Your task to perform on an android device: open wifi settings Image 0: 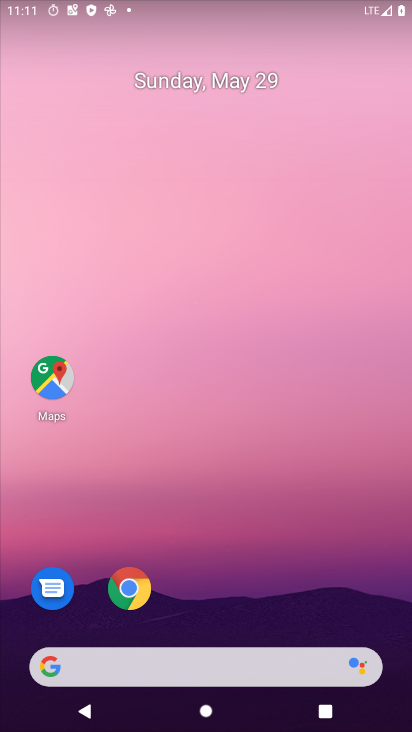
Step 0: drag from (292, 591) to (252, 69)
Your task to perform on an android device: open wifi settings Image 1: 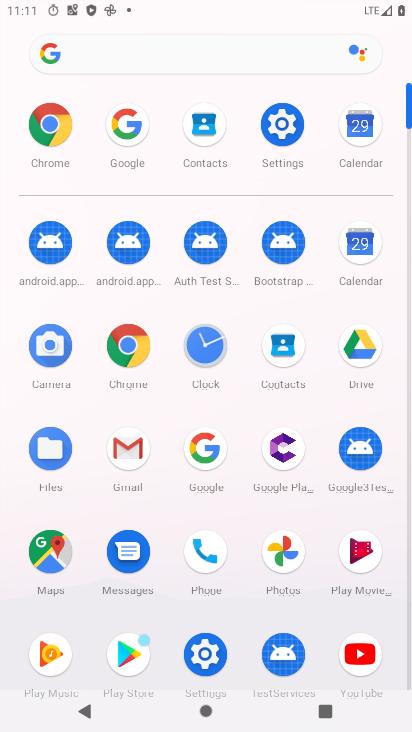
Step 1: click (212, 660)
Your task to perform on an android device: open wifi settings Image 2: 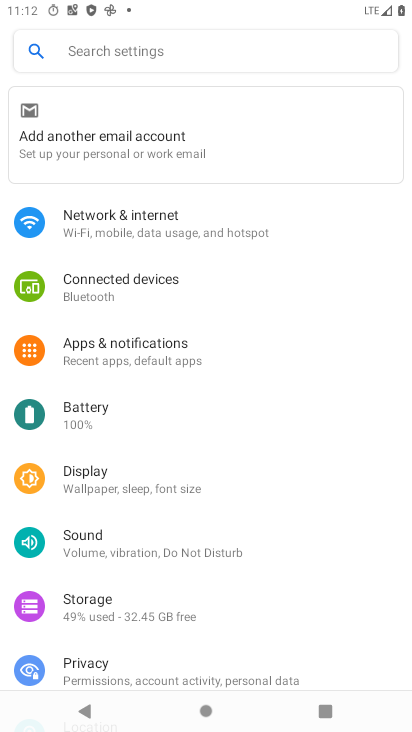
Step 2: click (151, 229)
Your task to perform on an android device: open wifi settings Image 3: 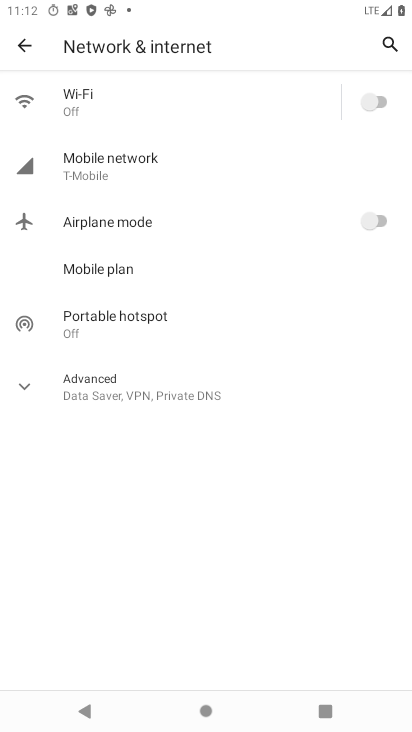
Step 3: click (156, 116)
Your task to perform on an android device: open wifi settings Image 4: 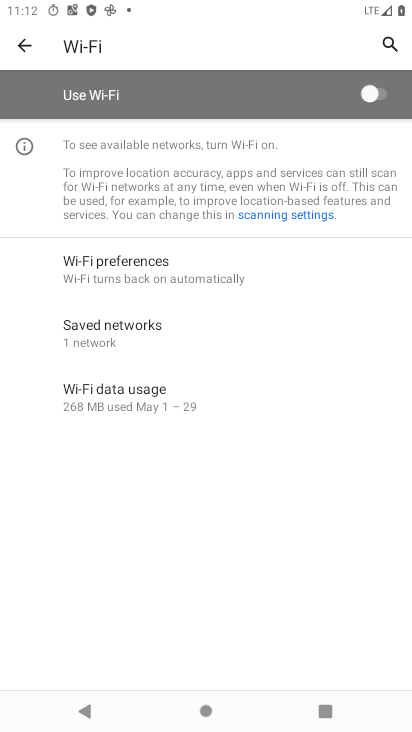
Step 4: task complete